Your task to perform on an android device: Open CNN.com Image 0: 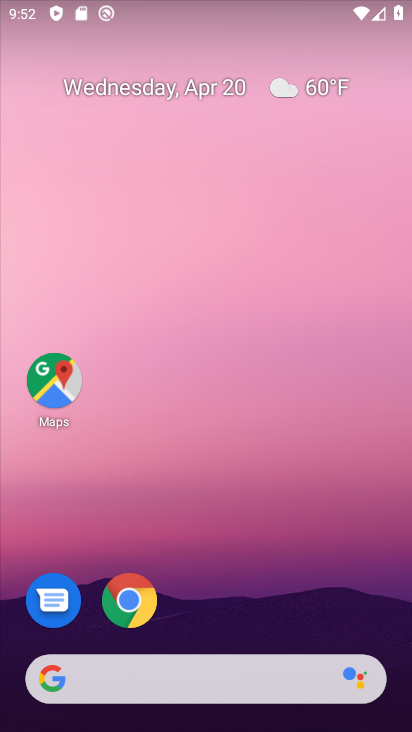
Step 0: click (127, 606)
Your task to perform on an android device: Open CNN.com Image 1: 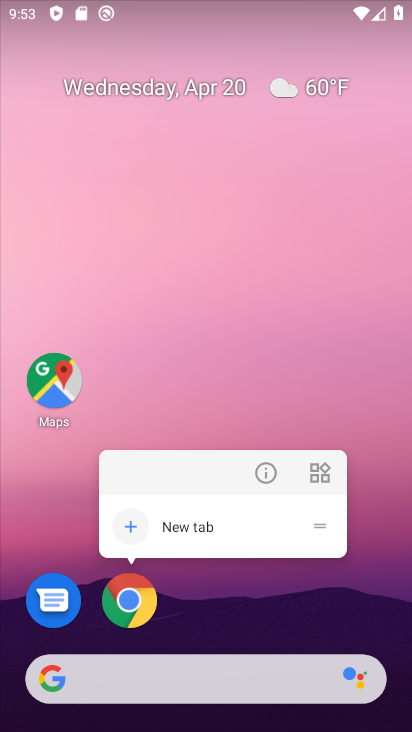
Step 1: click (132, 608)
Your task to perform on an android device: Open CNN.com Image 2: 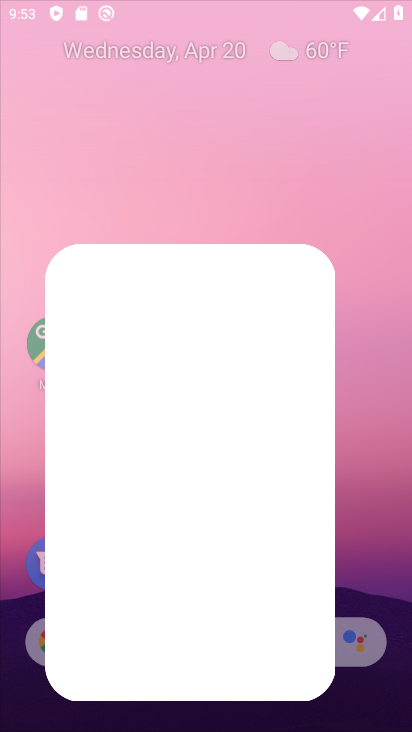
Step 2: click (209, 596)
Your task to perform on an android device: Open CNN.com Image 3: 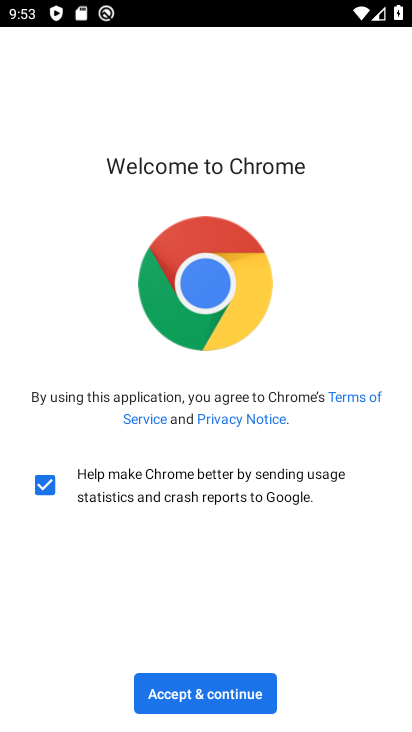
Step 3: click (196, 698)
Your task to perform on an android device: Open CNN.com Image 4: 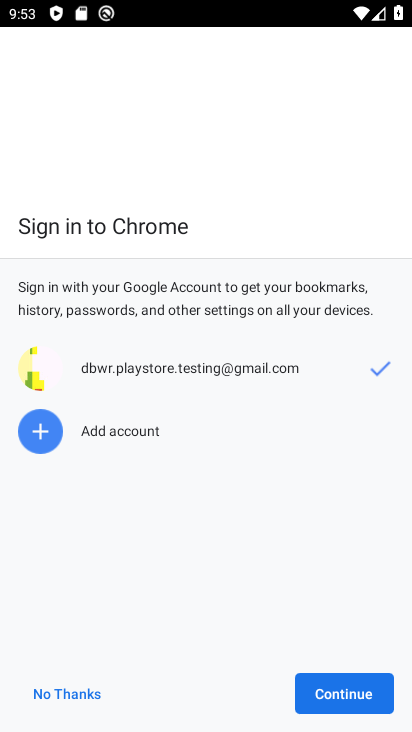
Step 4: click (346, 698)
Your task to perform on an android device: Open CNN.com Image 5: 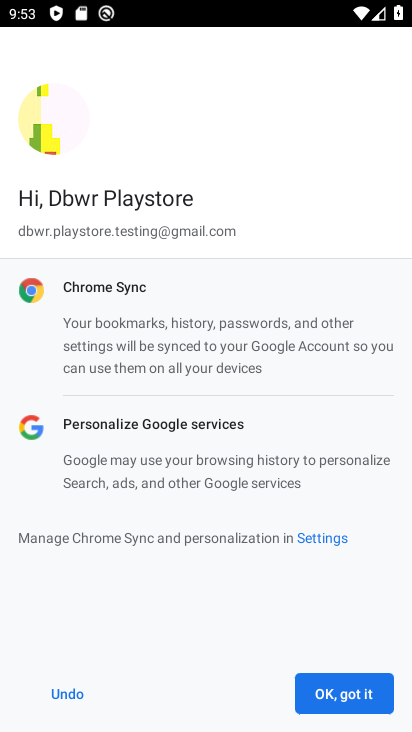
Step 5: click (346, 698)
Your task to perform on an android device: Open CNN.com Image 6: 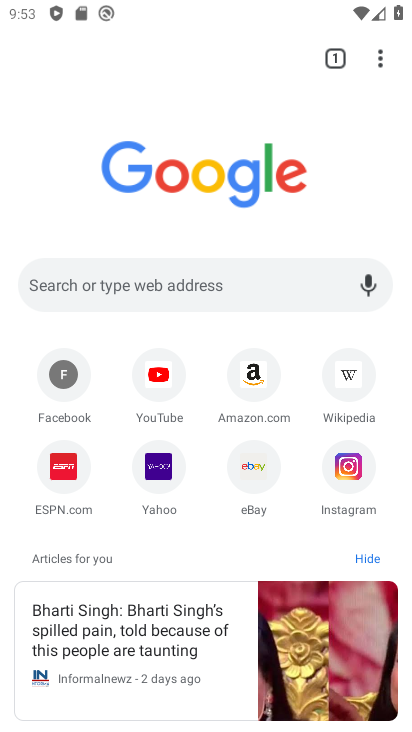
Step 6: click (142, 287)
Your task to perform on an android device: Open CNN.com Image 7: 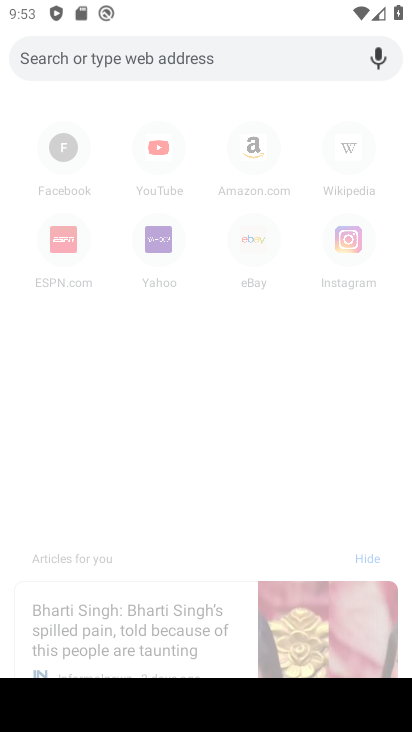
Step 7: type "CNN.com"
Your task to perform on an android device: Open CNN.com Image 8: 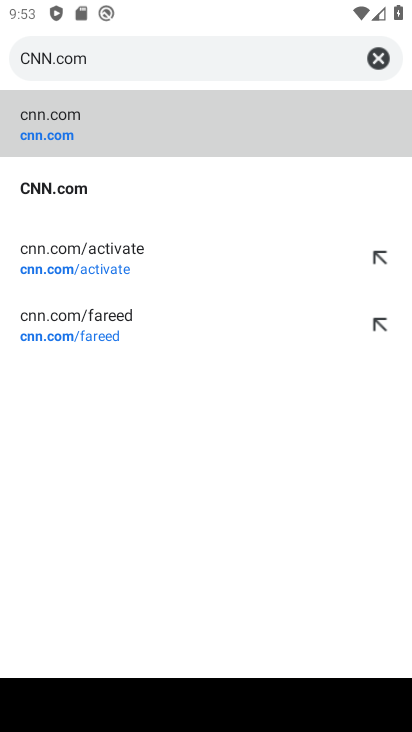
Step 8: click (57, 117)
Your task to perform on an android device: Open CNN.com Image 9: 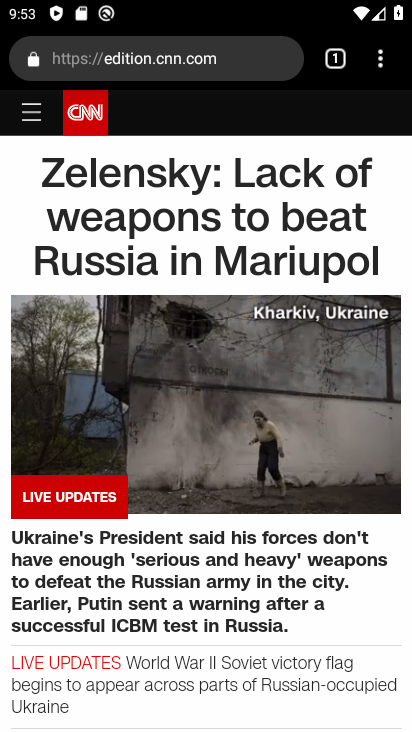
Step 9: task complete